Your task to perform on an android device: Open Google Maps Image 0: 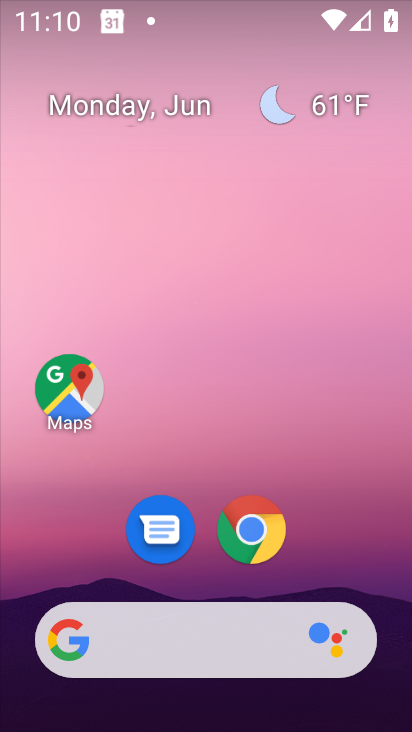
Step 0: click (85, 388)
Your task to perform on an android device: Open Google Maps Image 1: 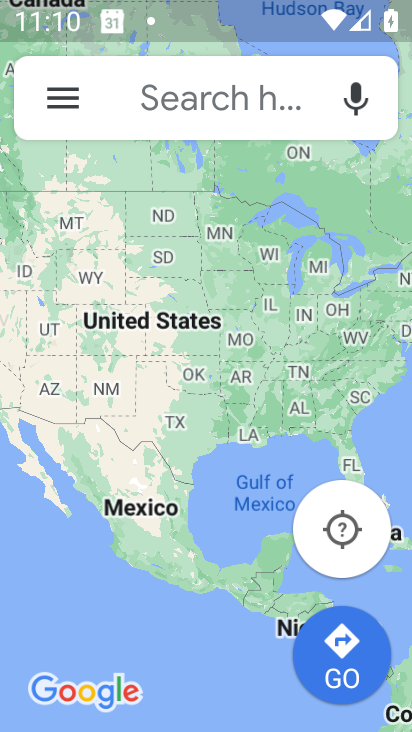
Step 1: task complete